Your task to perform on an android device: What's the weather going to be tomorrow? Image 0: 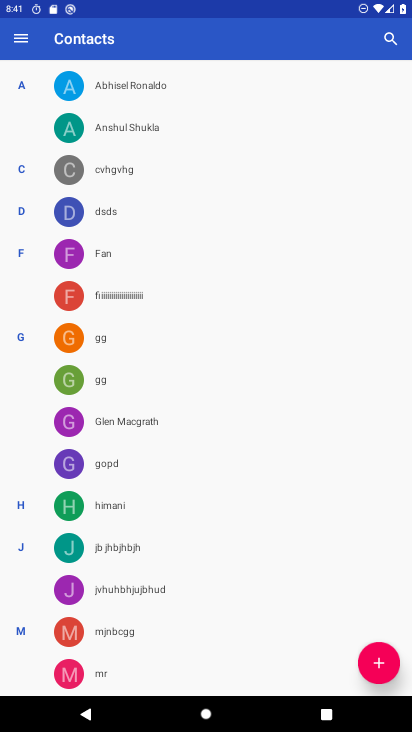
Step 0: press home button
Your task to perform on an android device: What's the weather going to be tomorrow? Image 1: 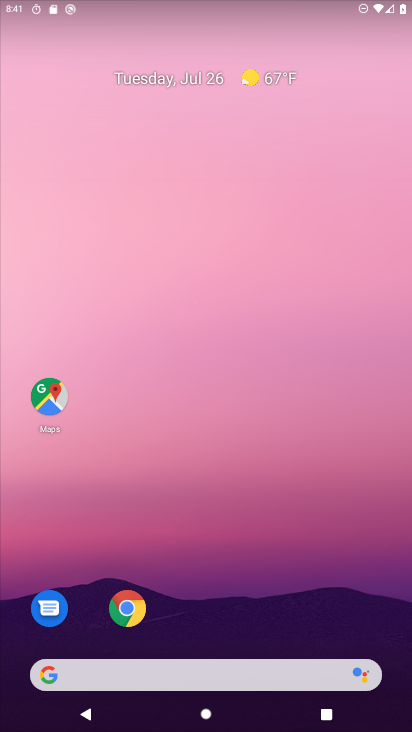
Step 1: click (103, 675)
Your task to perform on an android device: What's the weather going to be tomorrow? Image 2: 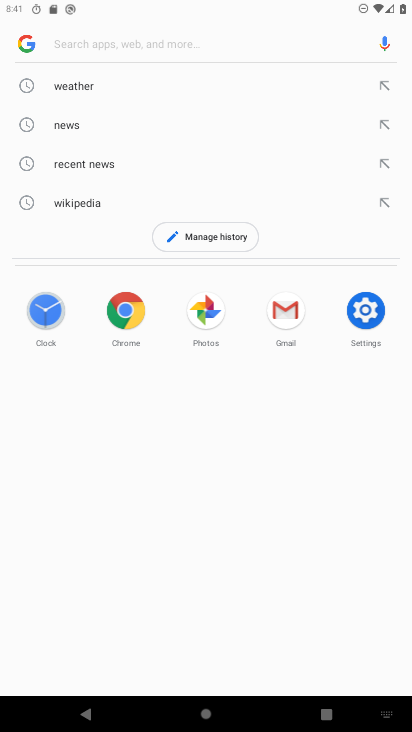
Step 2: click (97, 84)
Your task to perform on an android device: What's the weather going to be tomorrow? Image 3: 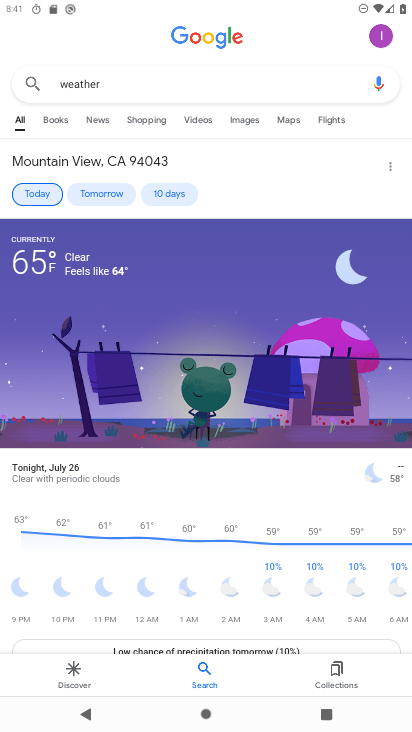
Step 3: click (113, 191)
Your task to perform on an android device: What's the weather going to be tomorrow? Image 4: 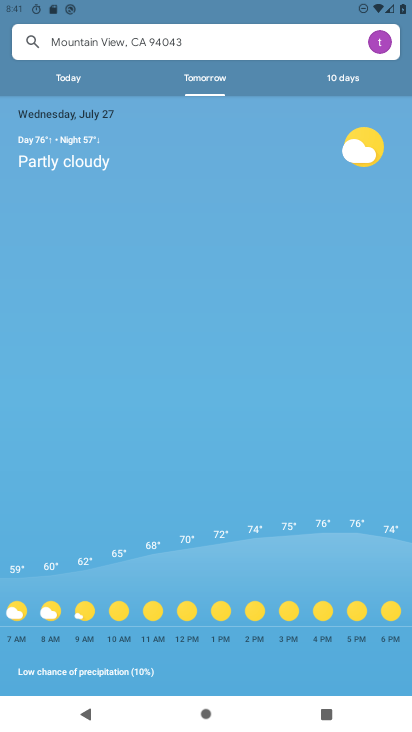
Step 4: task complete